Your task to perform on an android device: open a bookmark in the chrome app Image 0: 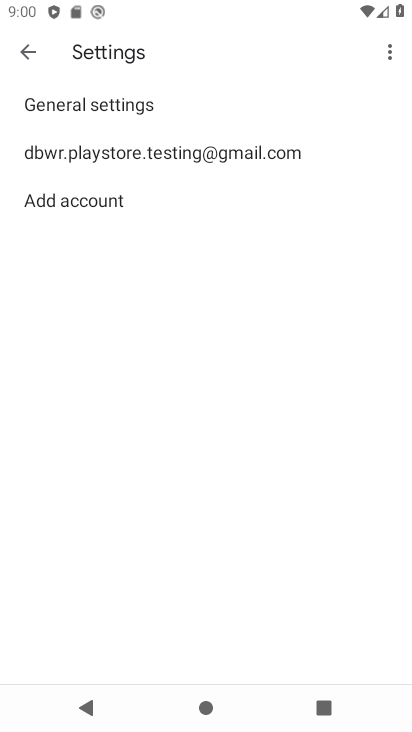
Step 0: press home button
Your task to perform on an android device: open a bookmark in the chrome app Image 1: 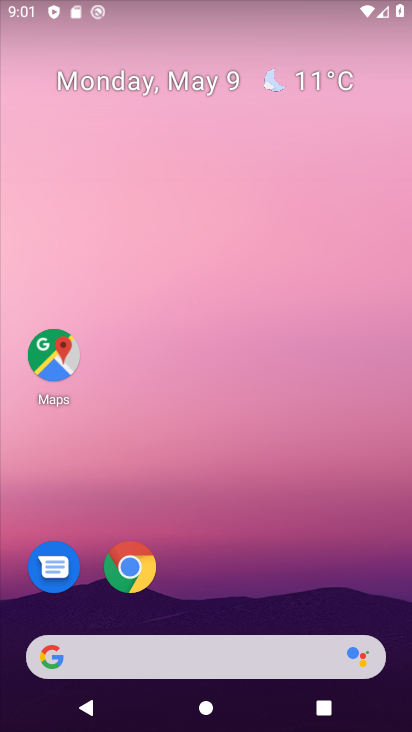
Step 1: click (141, 569)
Your task to perform on an android device: open a bookmark in the chrome app Image 2: 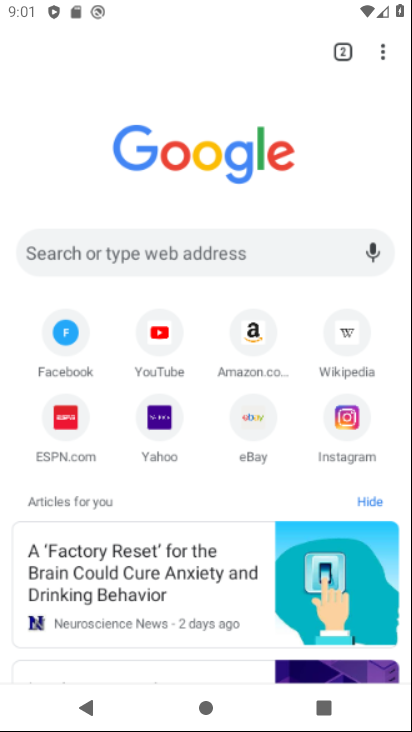
Step 2: click (386, 59)
Your task to perform on an android device: open a bookmark in the chrome app Image 3: 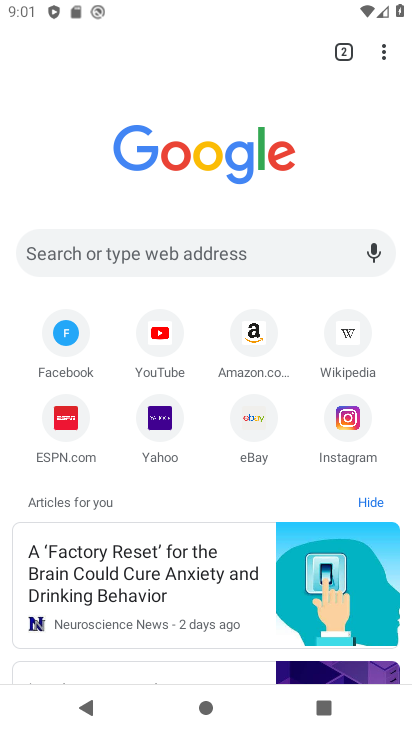
Step 3: click (384, 50)
Your task to perform on an android device: open a bookmark in the chrome app Image 4: 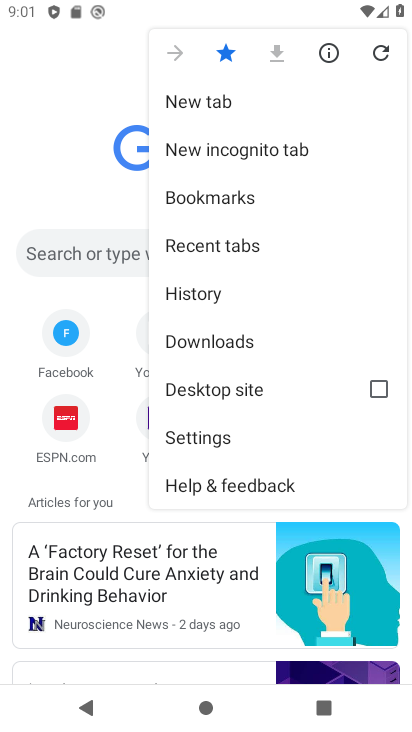
Step 4: click (222, 202)
Your task to perform on an android device: open a bookmark in the chrome app Image 5: 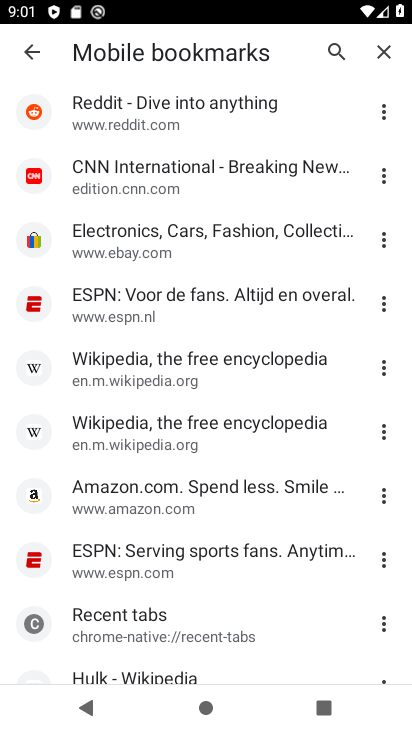
Step 5: click (220, 306)
Your task to perform on an android device: open a bookmark in the chrome app Image 6: 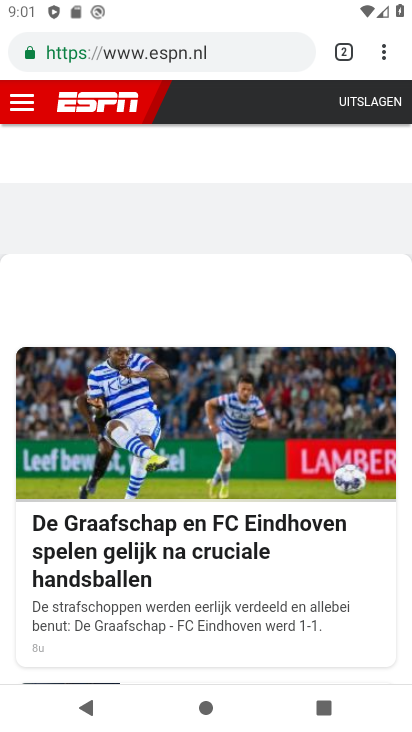
Step 6: task complete